Your task to perform on an android device: delete location history Image 0: 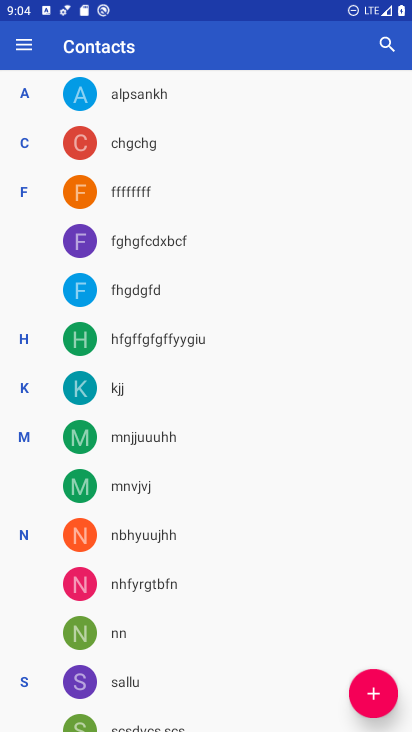
Step 0: press home button
Your task to perform on an android device: delete location history Image 1: 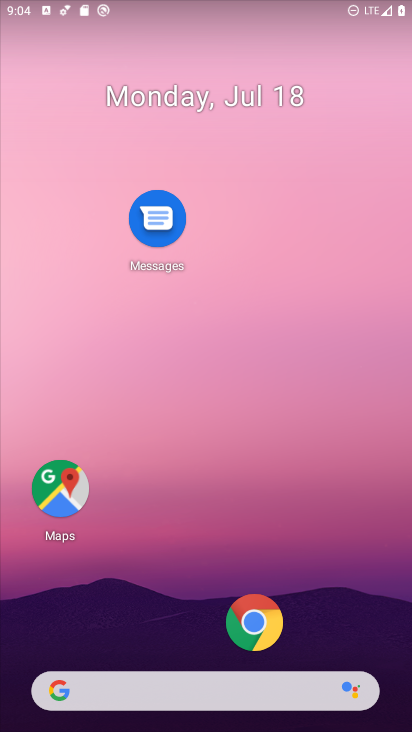
Step 1: drag from (191, 684) to (303, 166)
Your task to perform on an android device: delete location history Image 2: 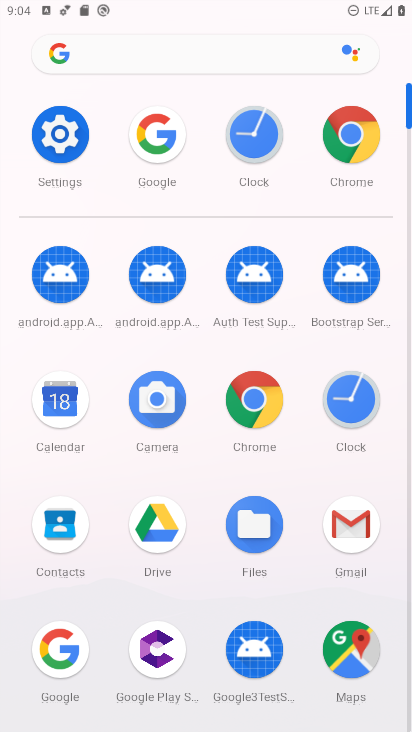
Step 2: click (55, 122)
Your task to perform on an android device: delete location history Image 3: 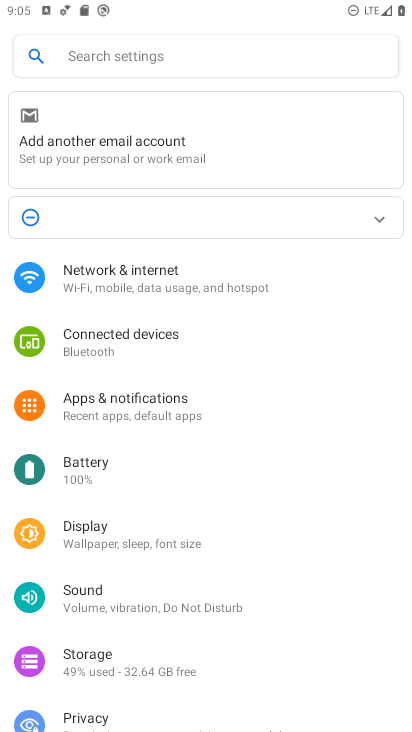
Step 3: drag from (149, 641) to (222, 334)
Your task to perform on an android device: delete location history Image 4: 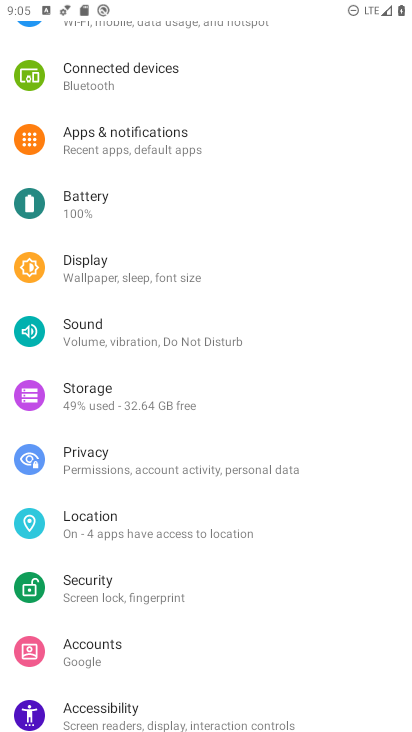
Step 4: click (105, 521)
Your task to perform on an android device: delete location history Image 5: 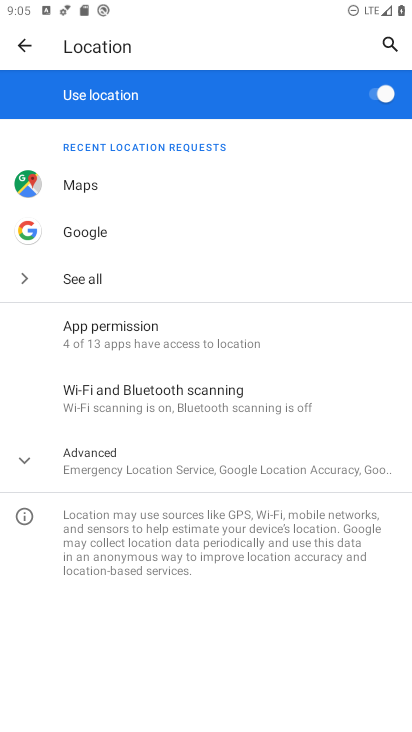
Step 5: click (117, 462)
Your task to perform on an android device: delete location history Image 6: 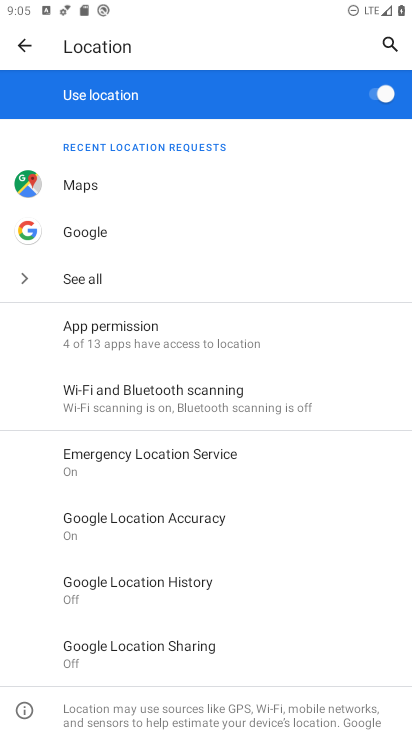
Step 6: click (157, 596)
Your task to perform on an android device: delete location history Image 7: 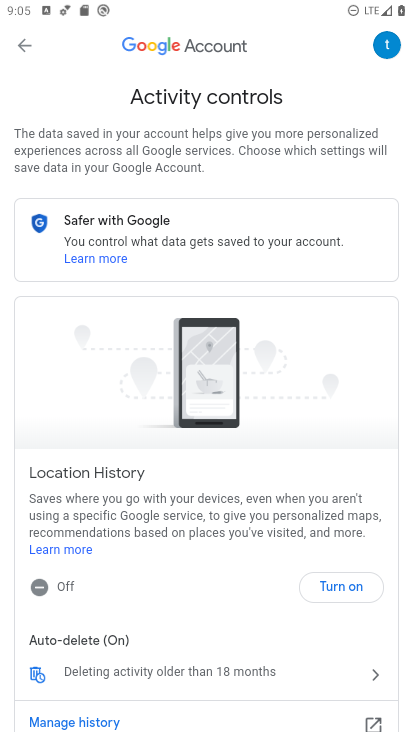
Step 7: click (275, 681)
Your task to perform on an android device: delete location history Image 8: 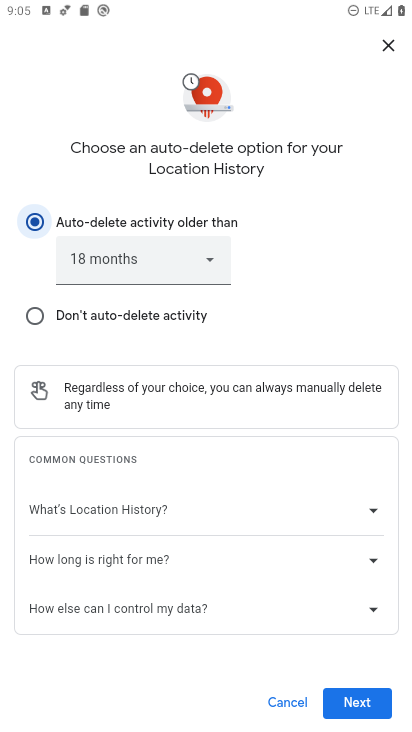
Step 8: click (359, 701)
Your task to perform on an android device: delete location history Image 9: 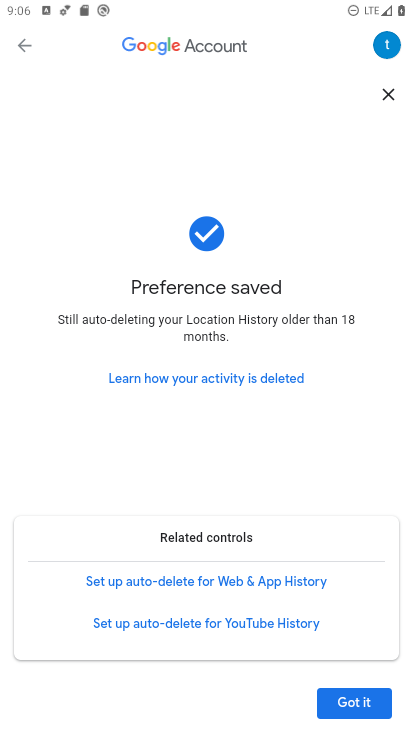
Step 9: click (375, 705)
Your task to perform on an android device: delete location history Image 10: 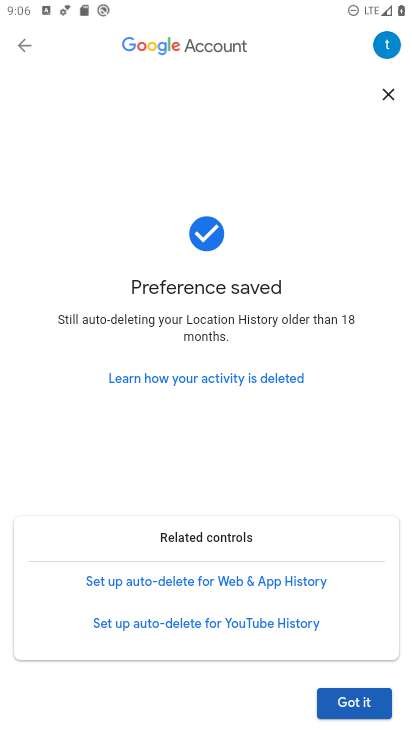
Step 10: click (365, 704)
Your task to perform on an android device: delete location history Image 11: 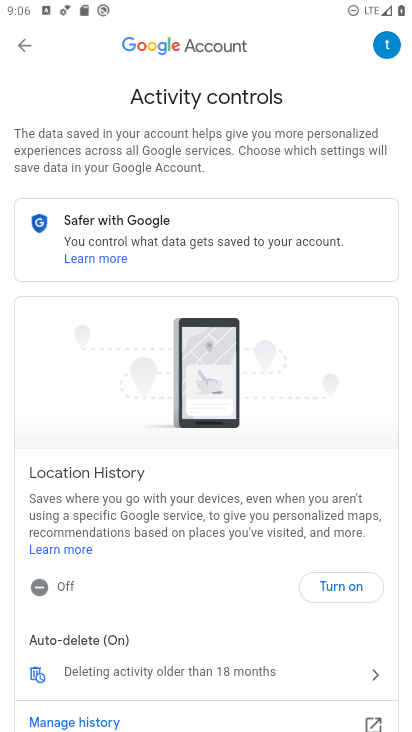
Step 11: task complete